Your task to perform on an android device: Open Amazon Image 0: 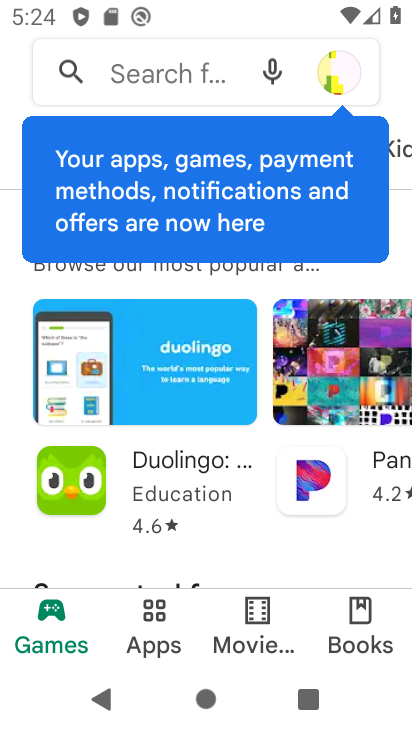
Step 0: press home button
Your task to perform on an android device: Open Amazon Image 1: 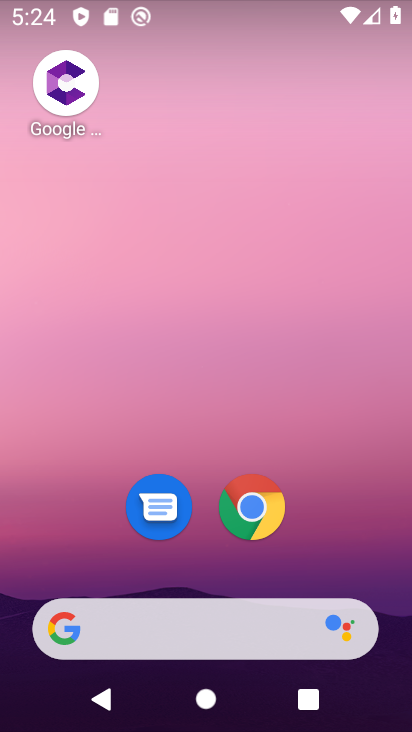
Step 1: click (267, 505)
Your task to perform on an android device: Open Amazon Image 2: 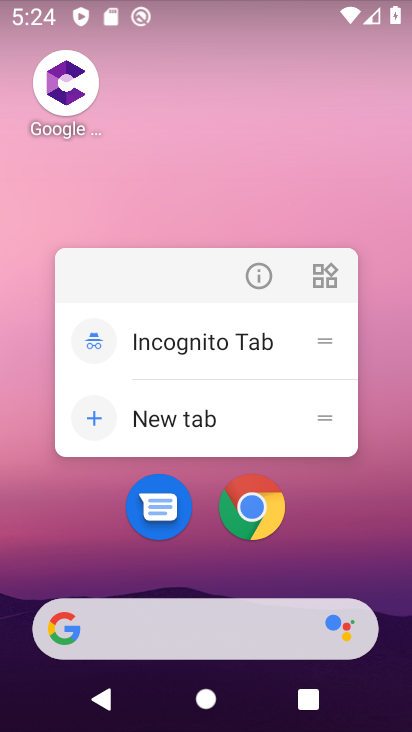
Step 2: click (252, 508)
Your task to perform on an android device: Open Amazon Image 3: 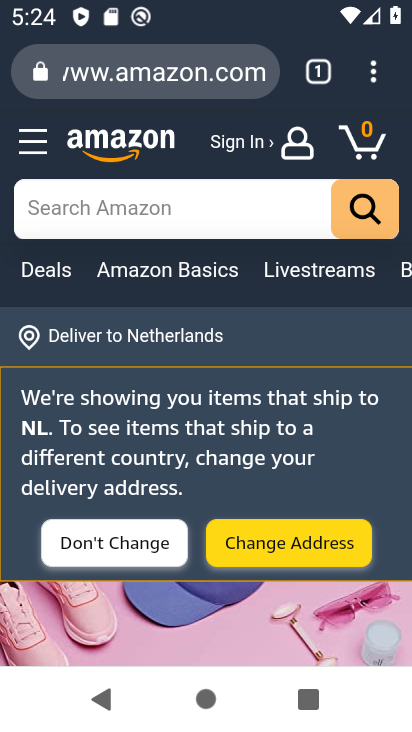
Step 3: task complete